Your task to perform on an android device: change the clock style Image 0: 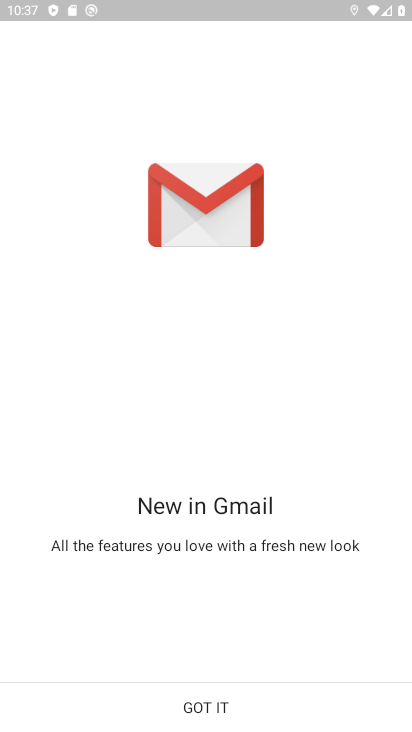
Step 0: press home button
Your task to perform on an android device: change the clock style Image 1: 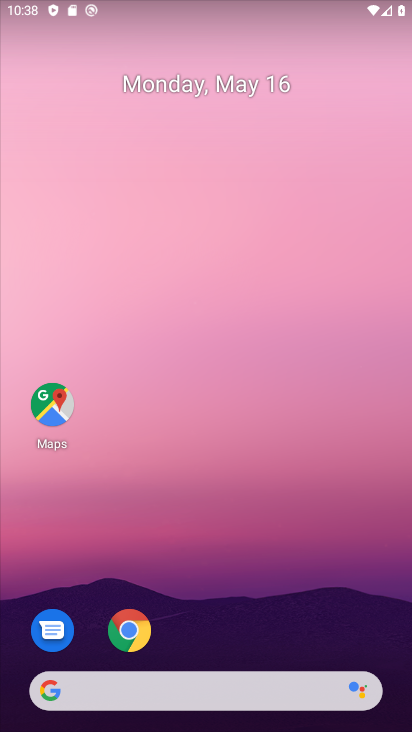
Step 1: drag from (248, 637) to (133, 116)
Your task to perform on an android device: change the clock style Image 2: 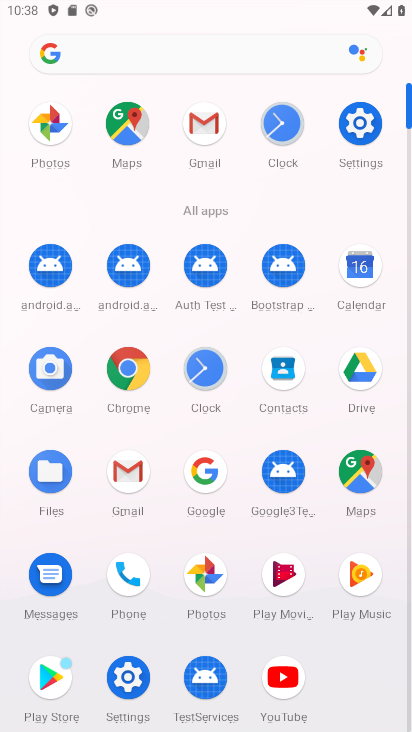
Step 2: click (285, 129)
Your task to perform on an android device: change the clock style Image 3: 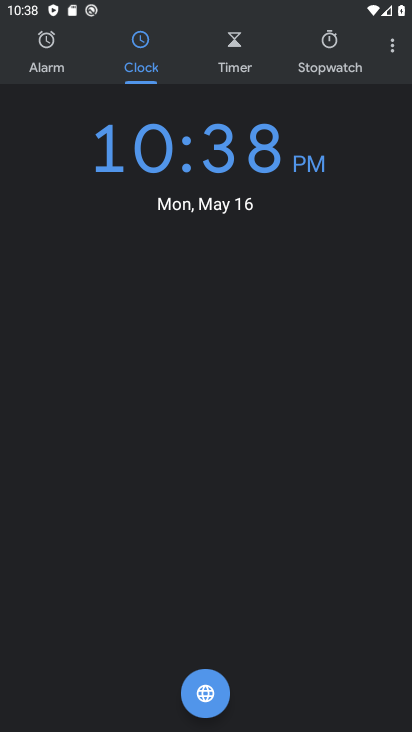
Step 3: click (391, 66)
Your task to perform on an android device: change the clock style Image 4: 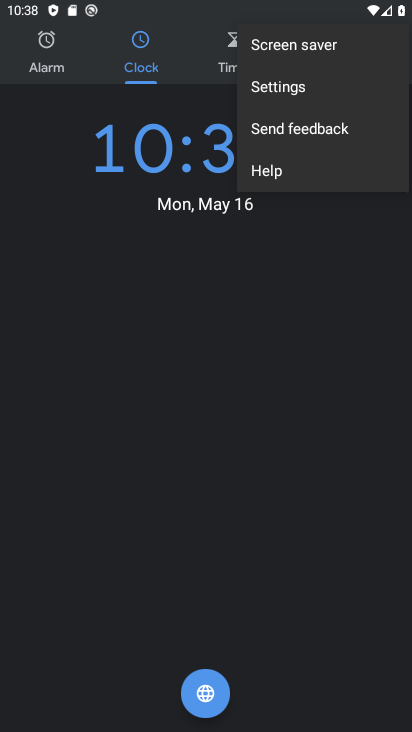
Step 4: click (308, 96)
Your task to perform on an android device: change the clock style Image 5: 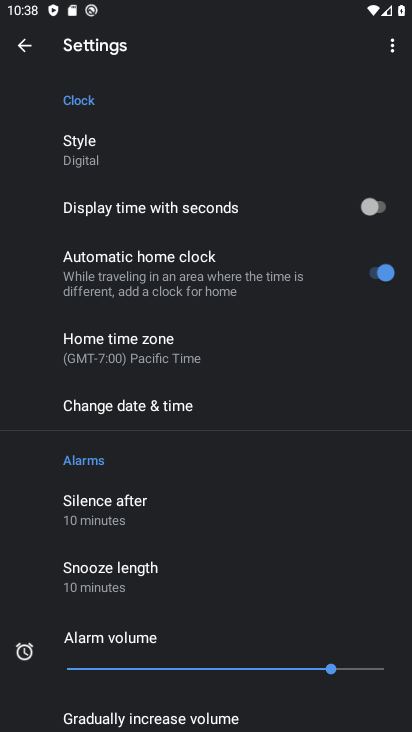
Step 5: click (258, 143)
Your task to perform on an android device: change the clock style Image 6: 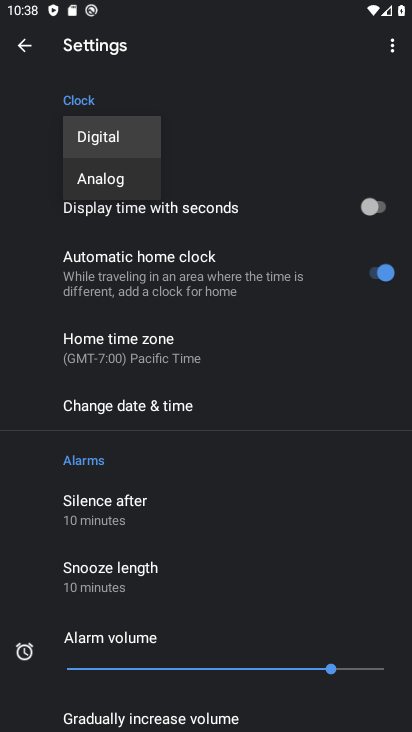
Step 6: task complete